Your task to perform on an android device: install app "Airtel Thanks" Image 0: 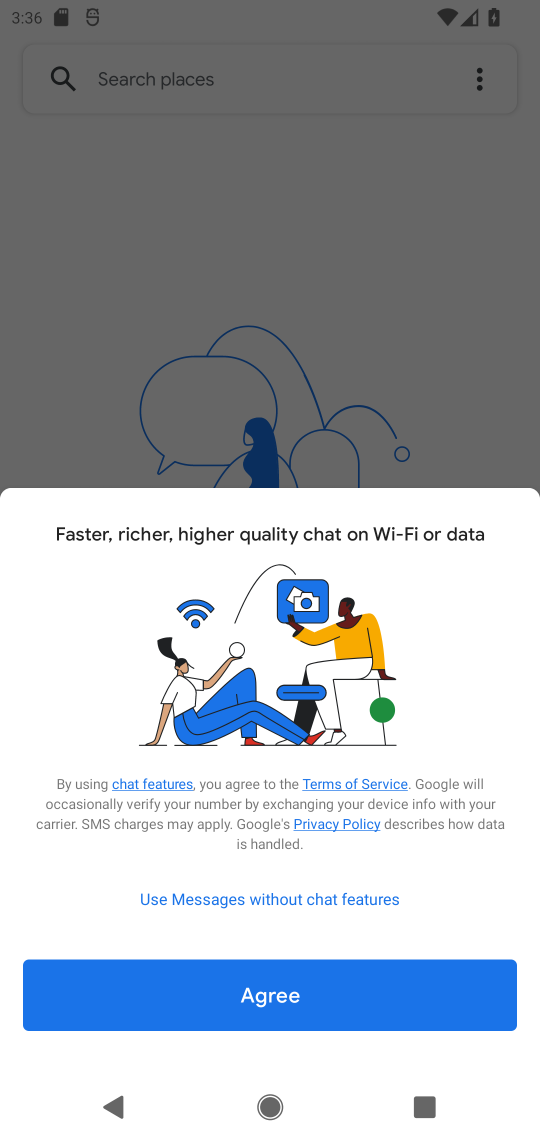
Step 0: press home button
Your task to perform on an android device: install app "Airtel Thanks" Image 1: 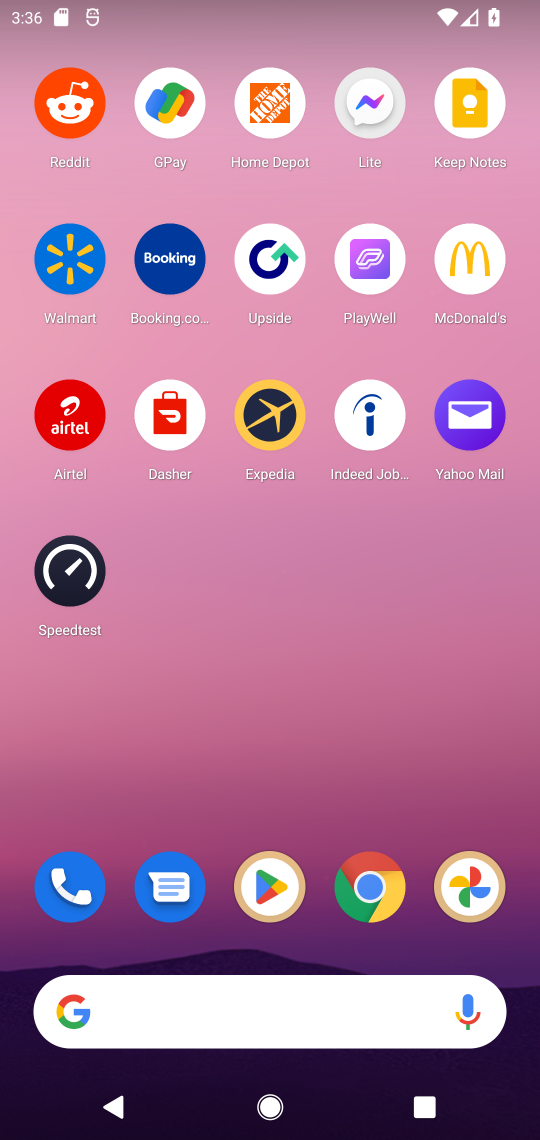
Step 1: click (261, 885)
Your task to perform on an android device: install app "Airtel Thanks" Image 2: 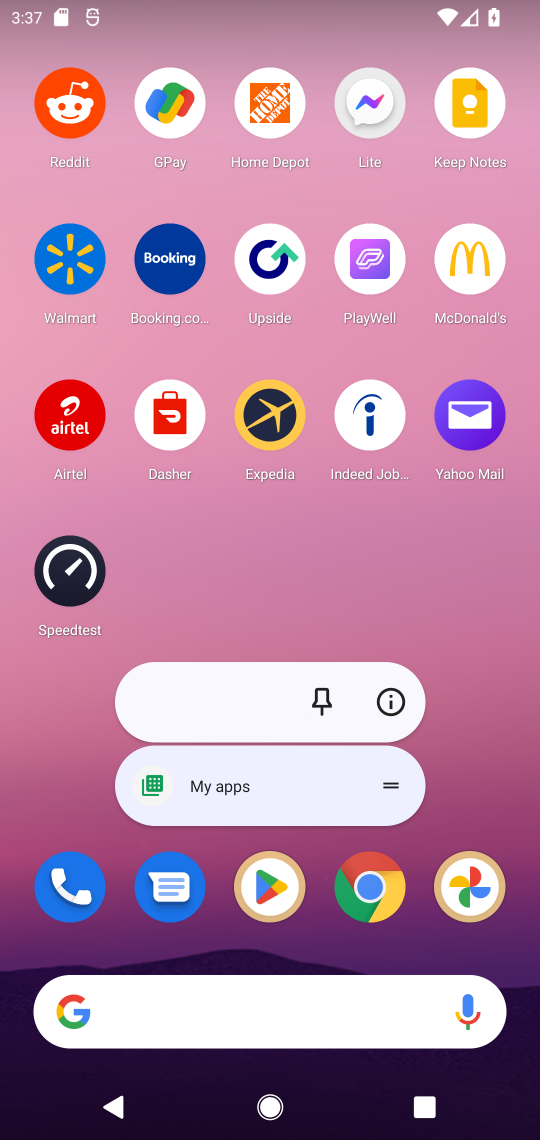
Step 2: click (267, 900)
Your task to perform on an android device: install app "Airtel Thanks" Image 3: 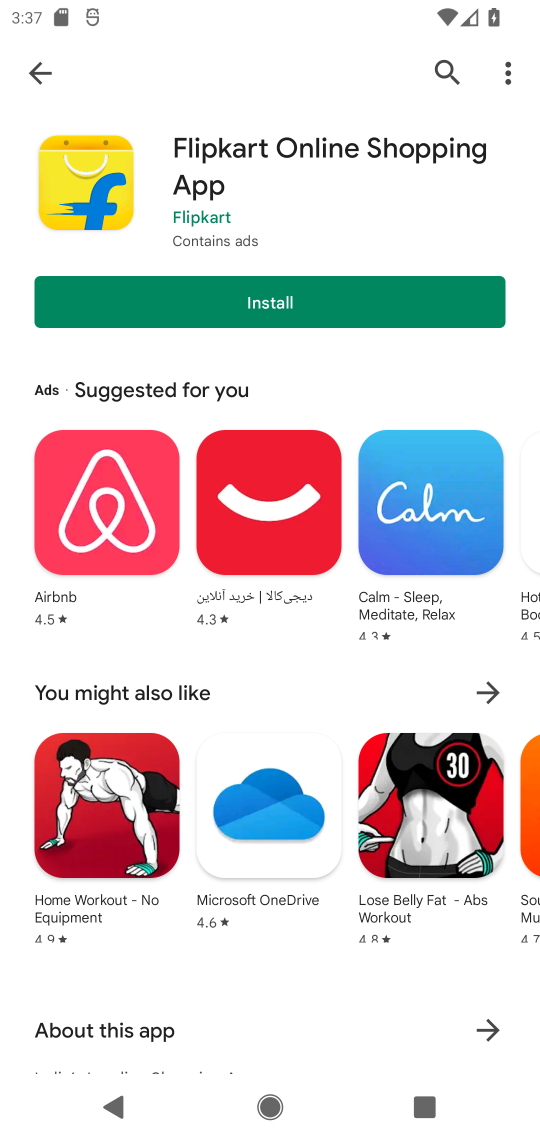
Step 3: click (43, 68)
Your task to perform on an android device: install app "Airtel Thanks" Image 4: 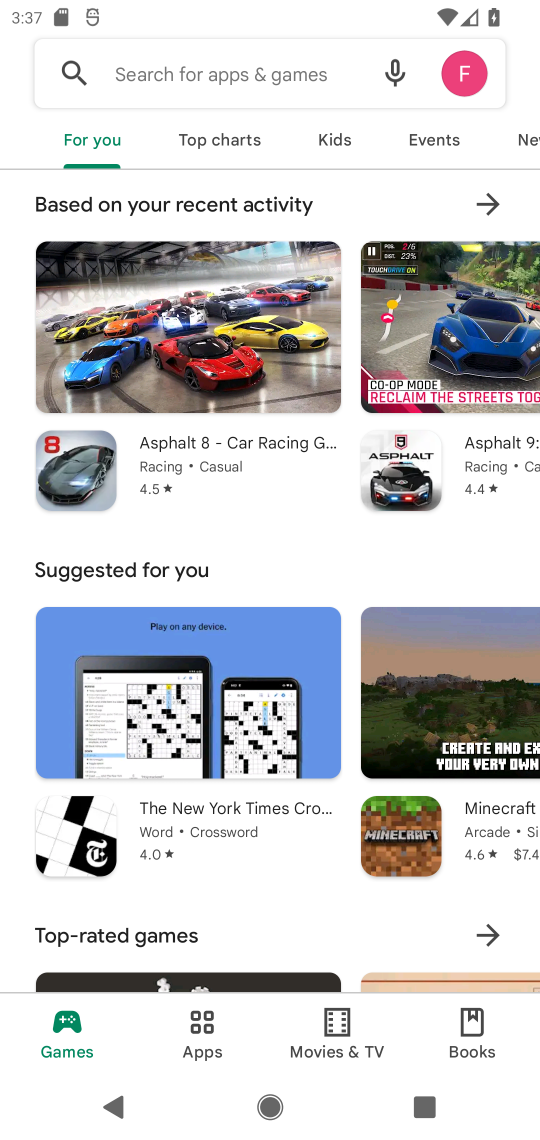
Step 4: click (222, 62)
Your task to perform on an android device: install app "Airtel Thanks" Image 5: 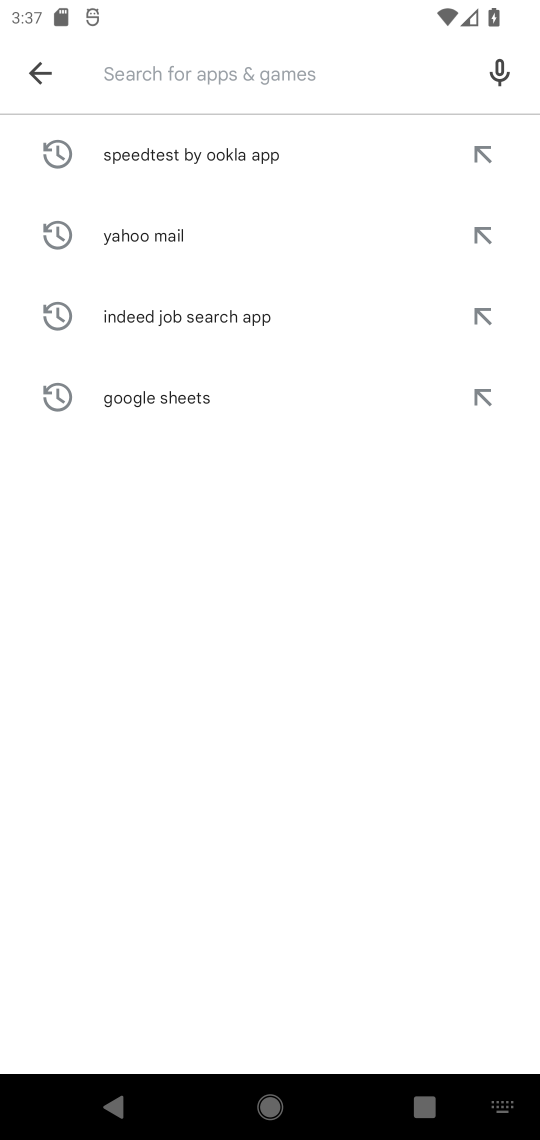
Step 5: type "Airtel Thanks"
Your task to perform on an android device: install app "Airtel Thanks" Image 6: 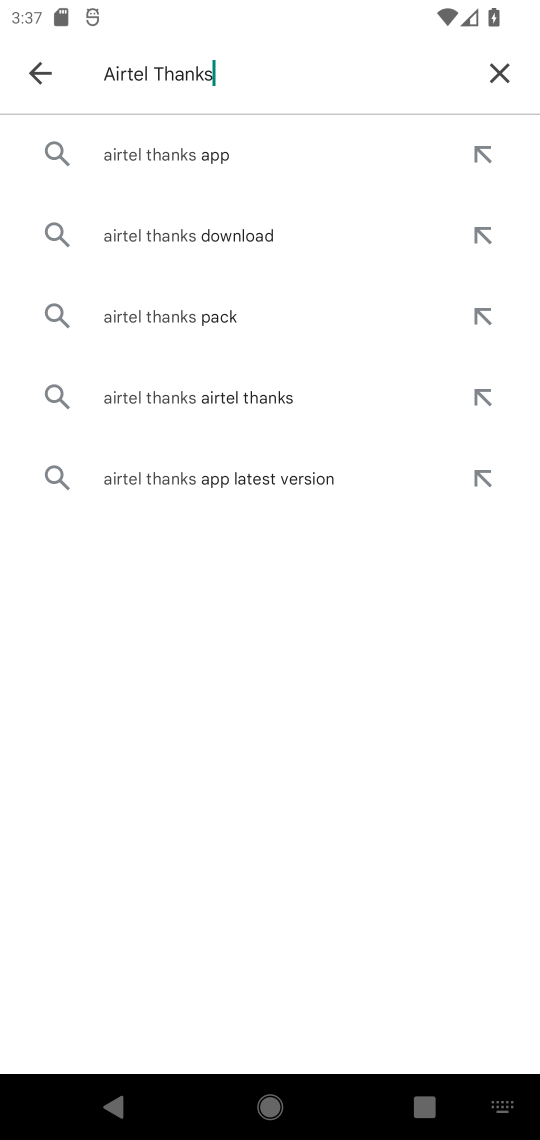
Step 6: click (176, 155)
Your task to perform on an android device: install app "Airtel Thanks" Image 7: 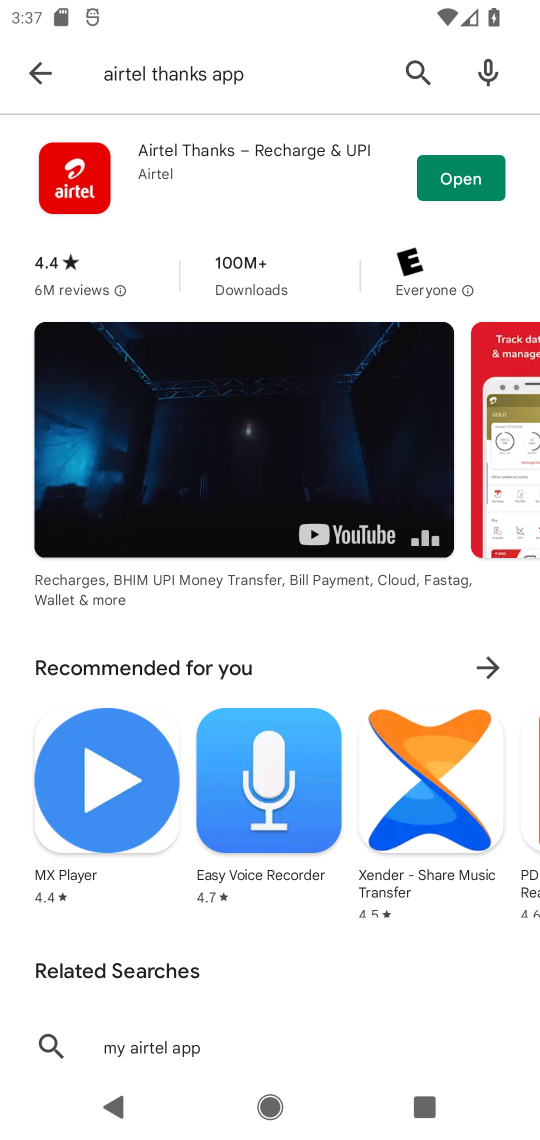
Step 7: click (436, 167)
Your task to perform on an android device: install app "Airtel Thanks" Image 8: 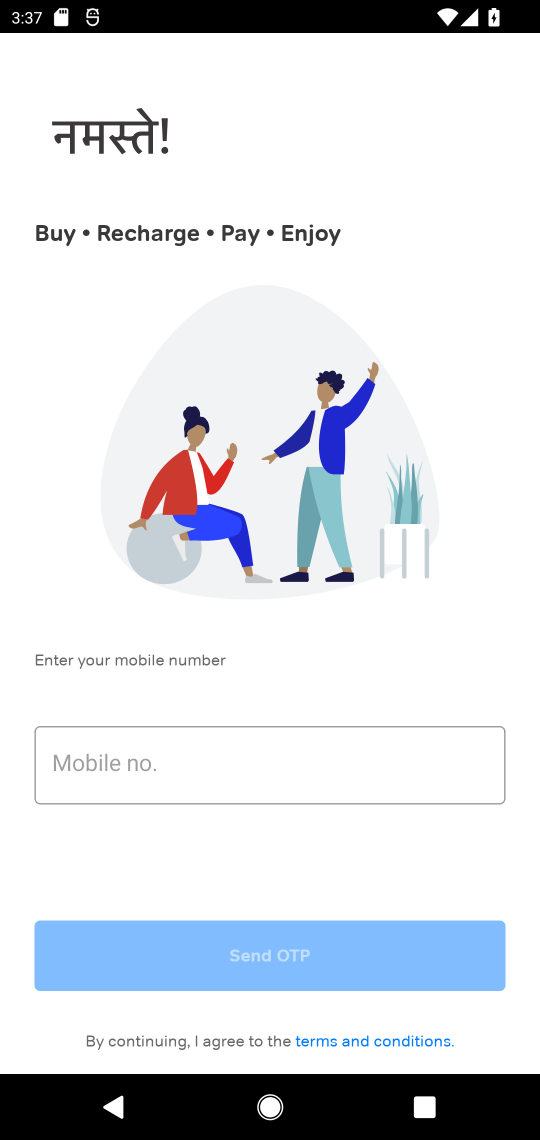
Step 8: task complete